Your task to perform on an android device: snooze an email in the gmail app Image 0: 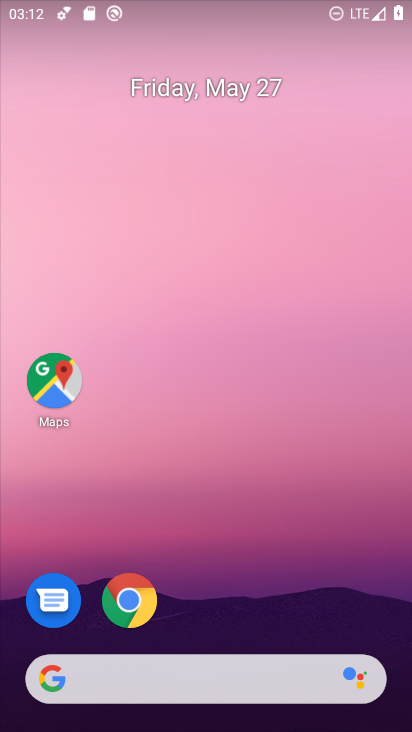
Step 0: drag from (235, 721) to (222, 60)
Your task to perform on an android device: snooze an email in the gmail app Image 1: 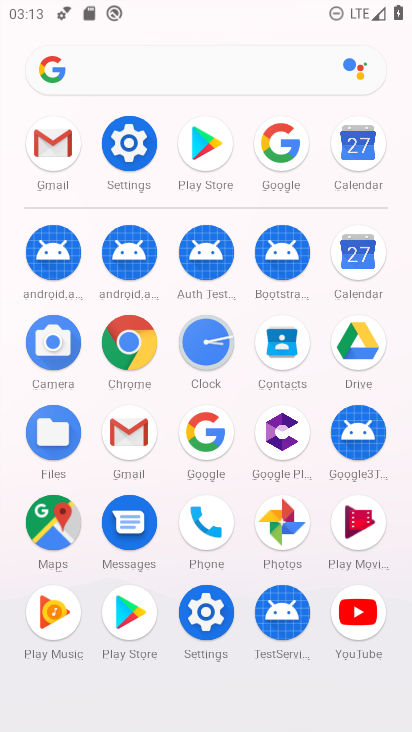
Step 1: click (130, 431)
Your task to perform on an android device: snooze an email in the gmail app Image 2: 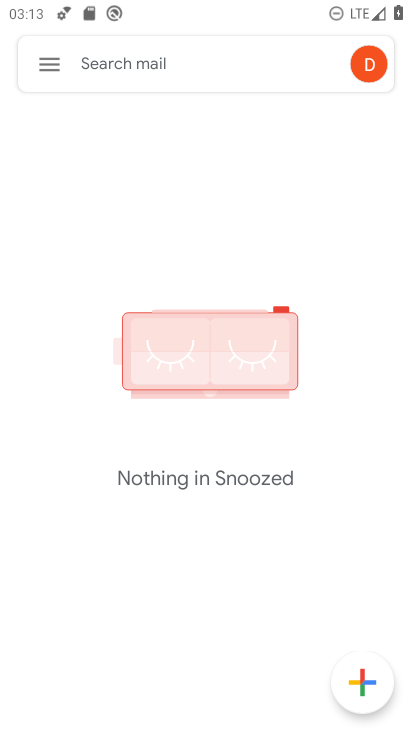
Step 2: click (47, 60)
Your task to perform on an android device: snooze an email in the gmail app Image 3: 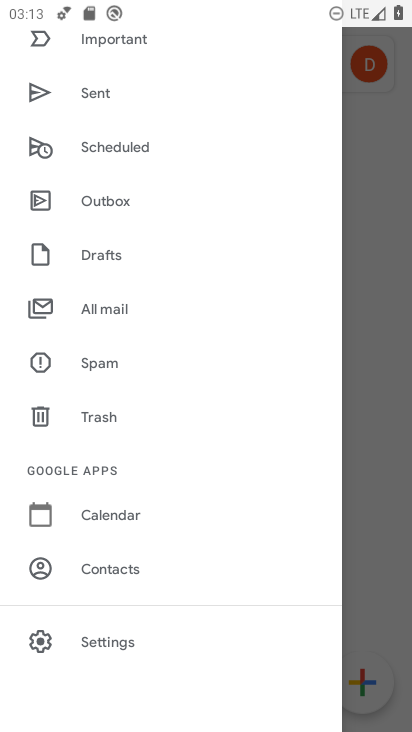
Step 3: drag from (128, 185) to (164, 539)
Your task to perform on an android device: snooze an email in the gmail app Image 4: 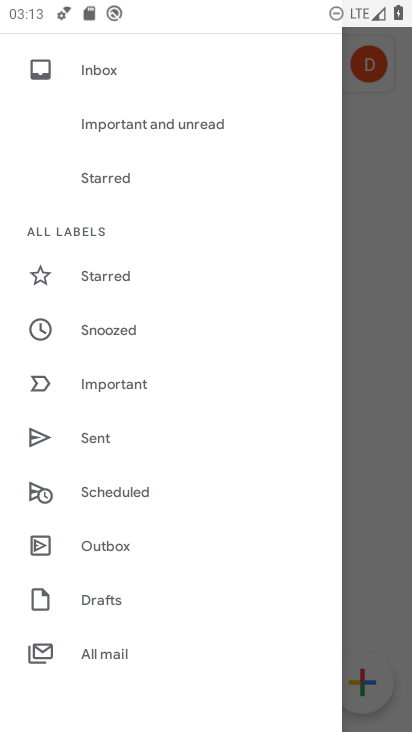
Step 4: click (107, 66)
Your task to perform on an android device: snooze an email in the gmail app Image 5: 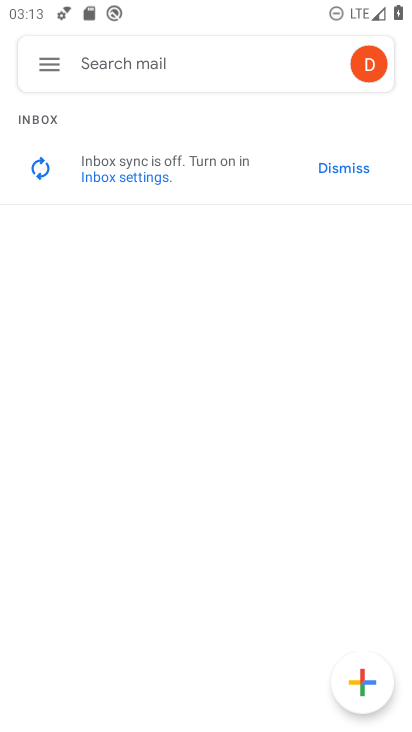
Step 5: task complete